Your task to perform on an android device: open a new tab in the chrome app Image 0: 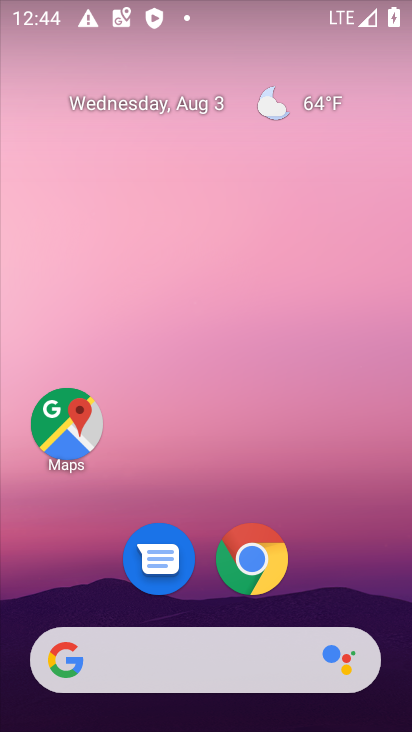
Step 0: click (244, 560)
Your task to perform on an android device: open a new tab in the chrome app Image 1: 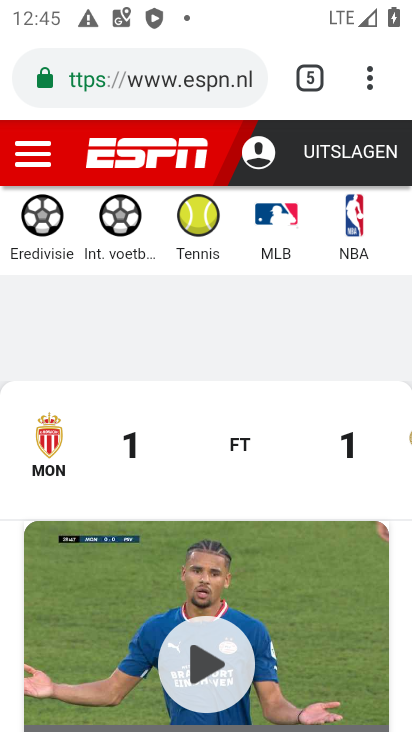
Step 1: click (368, 83)
Your task to perform on an android device: open a new tab in the chrome app Image 2: 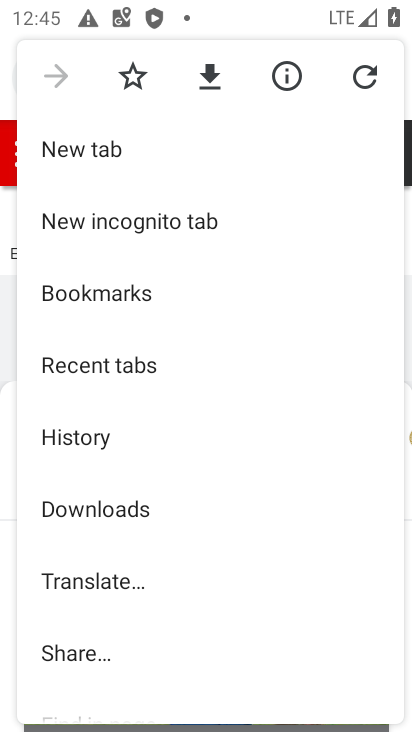
Step 2: click (104, 150)
Your task to perform on an android device: open a new tab in the chrome app Image 3: 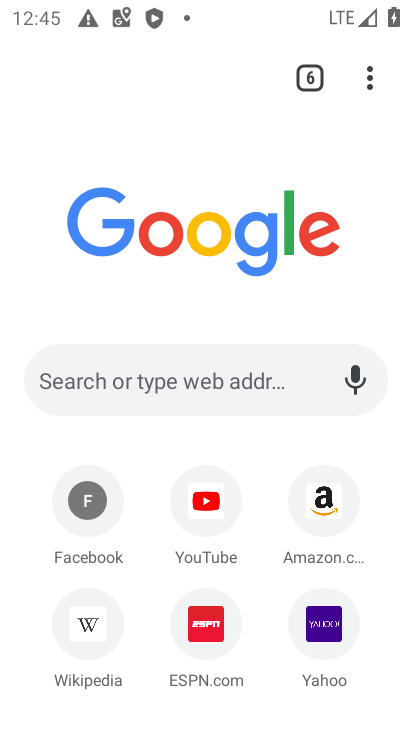
Step 3: task complete